Your task to perform on an android device: turn pop-ups on in chrome Image 0: 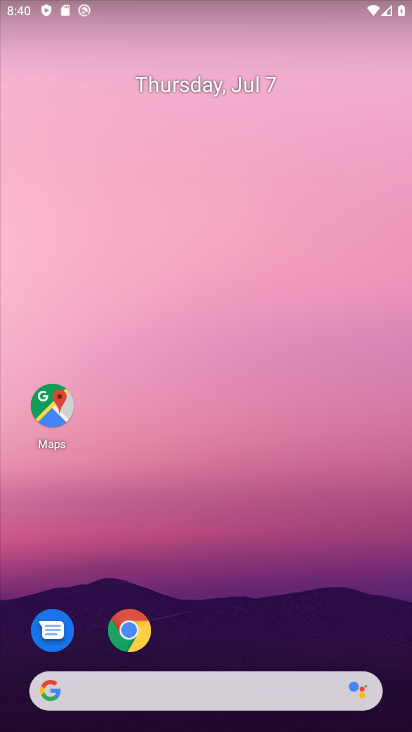
Step 0: click (140, 619)
Your task to perform on an android device: turn pop-ups on in chrome Image 1: 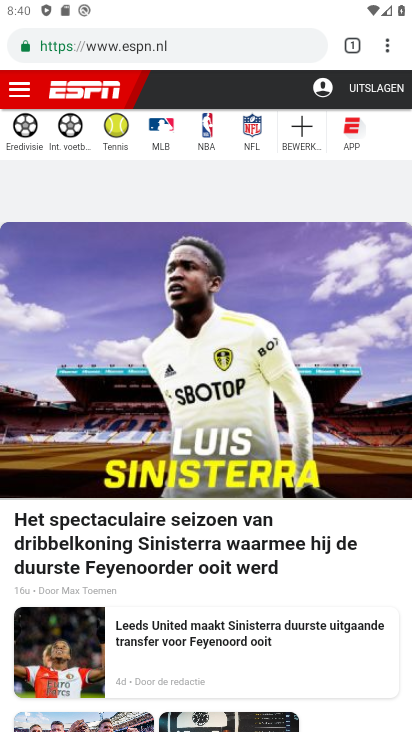
Step 1: click (390, 38)
Your task to perform on an android device: turn pop-ups on in chrome Image 2: 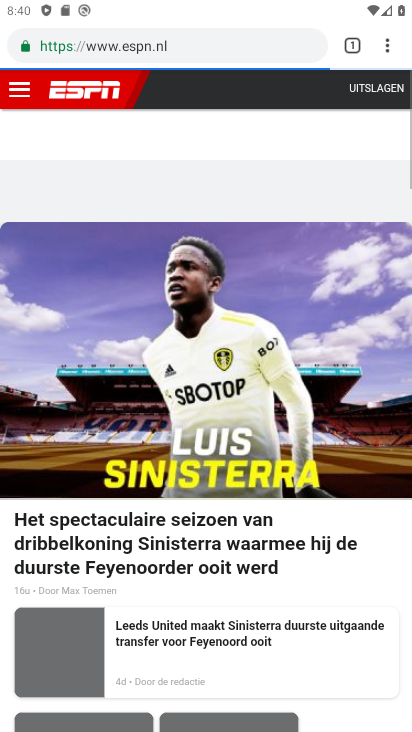
Step 2: drag from (390, 38) to (249, 595)
Your task to perform on an android device: turn pop-ups on in chrome Image 3: 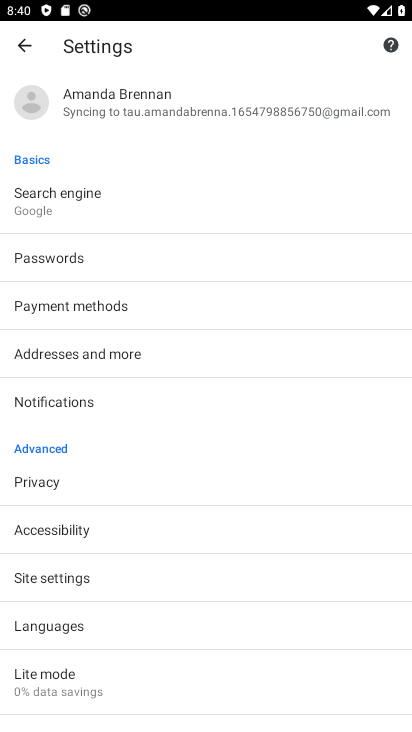
Step 3: click (91, 580)
Your task to perform on an android device: turn pop-ups on in chrome Image 4: 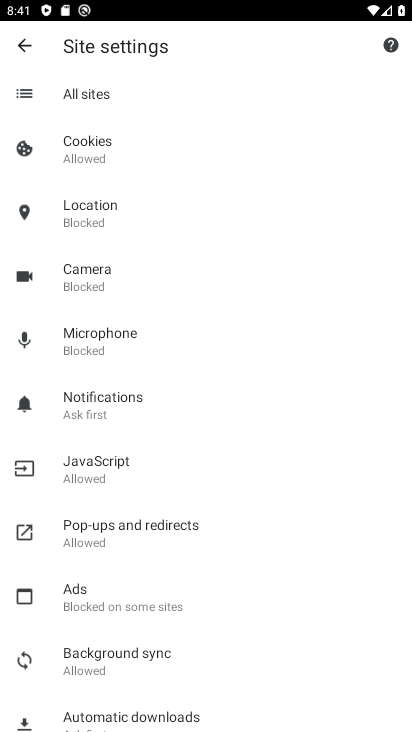
Step 4: click (114, 534)
Your task to perform on an android device: turn pop-ups on in chrome Image 5: 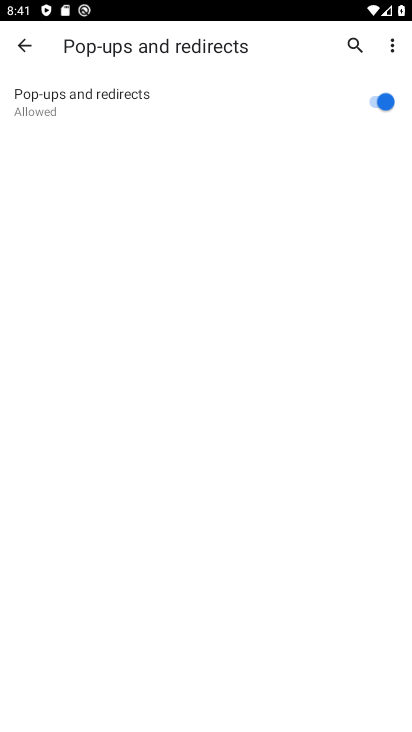
Step 5: task complete